Your task to perform on an android device: manage bookmarks in the chrome app Image 0: 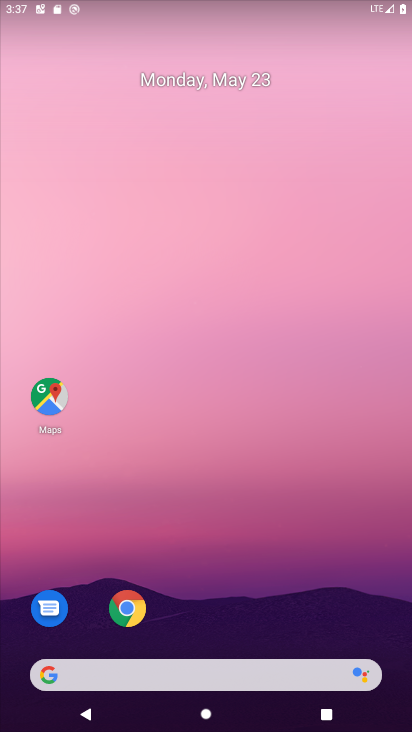
Step 0: drag from (260, 634) to (231, 147)
Your task to perform on an android device: manage bookmarks in the chrome app Image 1: 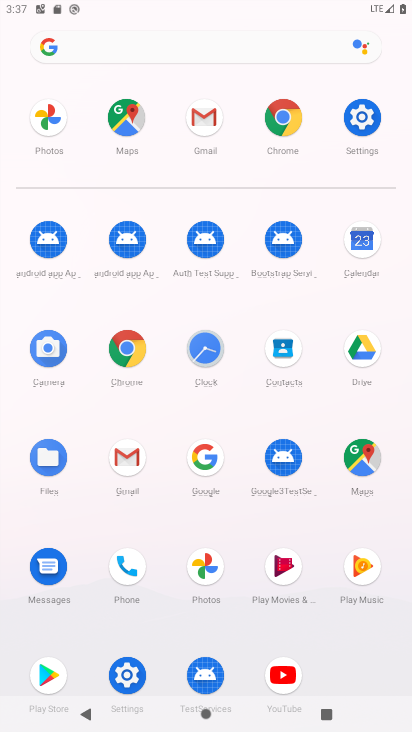
Step 1: click (289, 114)
Your task to perform on an android device: manage bookmarks in the chrome app Image 2: 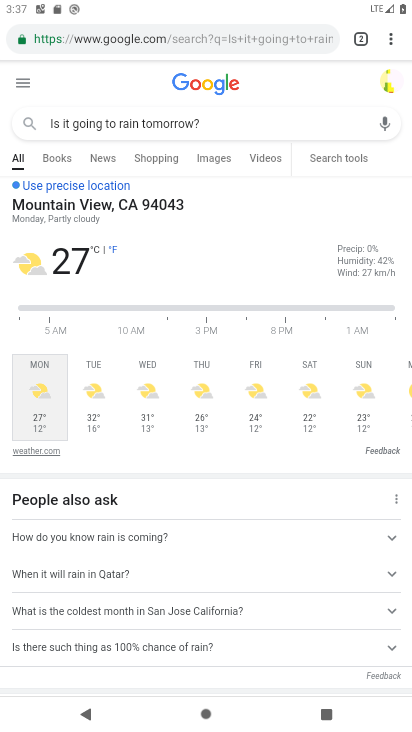
Step 2: click (392, 49)
Your task to perform on an android device: manage bookmarks in the chrome app Image 3: 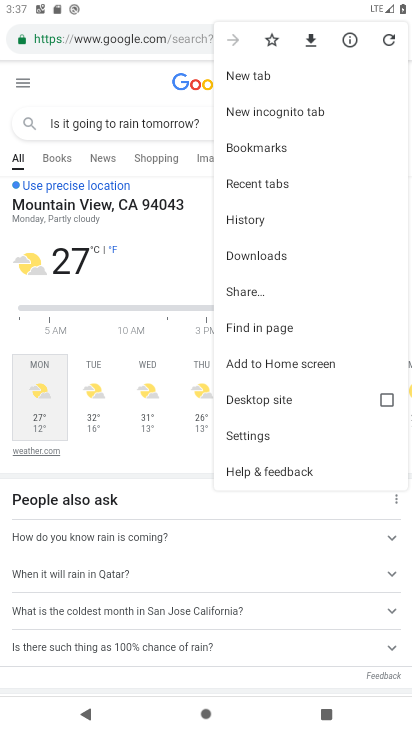
Step 3: click (313, 144)
Your task to perform on an android device: manage bookmarks in the chrome app Image 4: 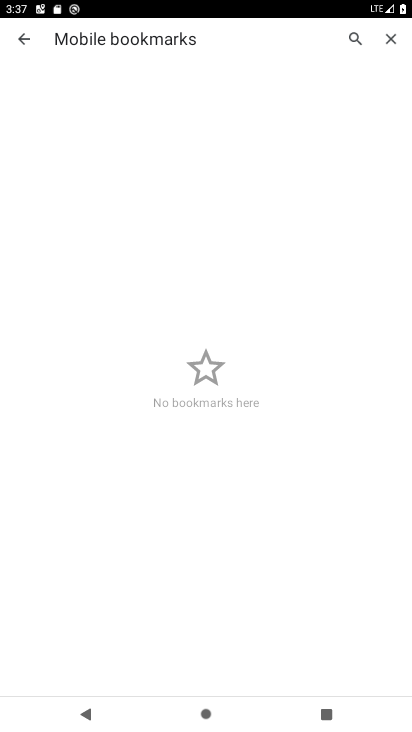
Step 4: task complete